Your task to perform on an android device: toggle translation in the chrome app Image 0: 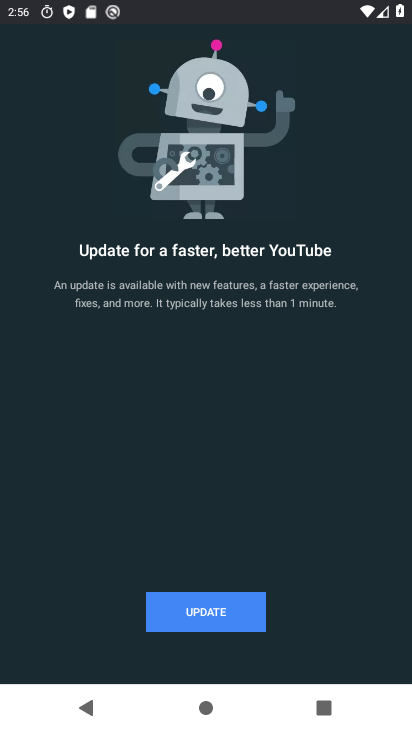
Step 0: press home button
Your task to perform on an android device: toggle translation in the chrome app Image 1: 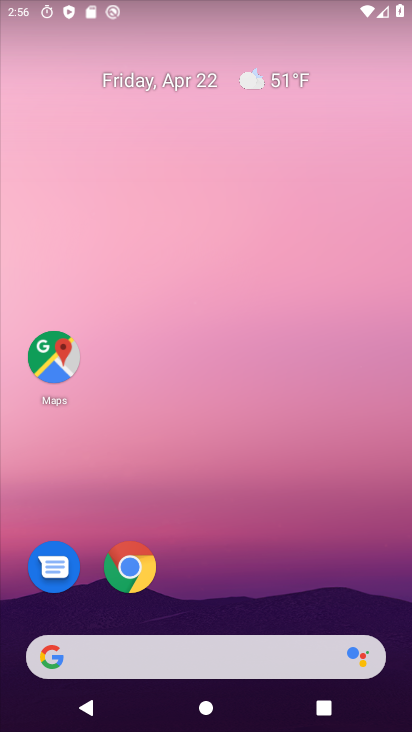
Step 1: click (116, 571)
Your task to perform on an android device: toggle translation in the chrome app Image 2: 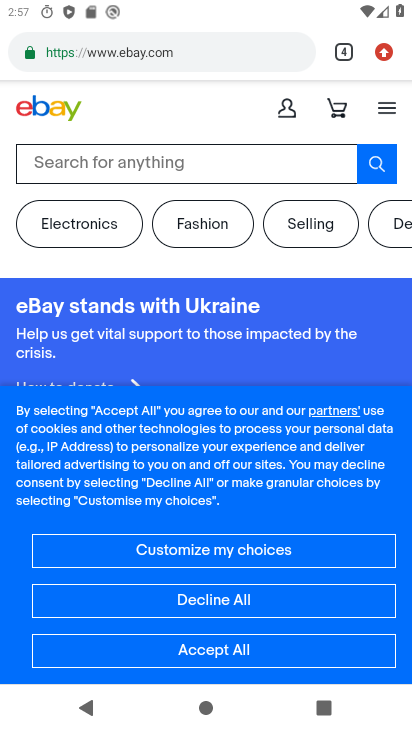
Step 2: click (383, 54)
Your task to perform on an android device: toggle translation in the chrome app Image 3: 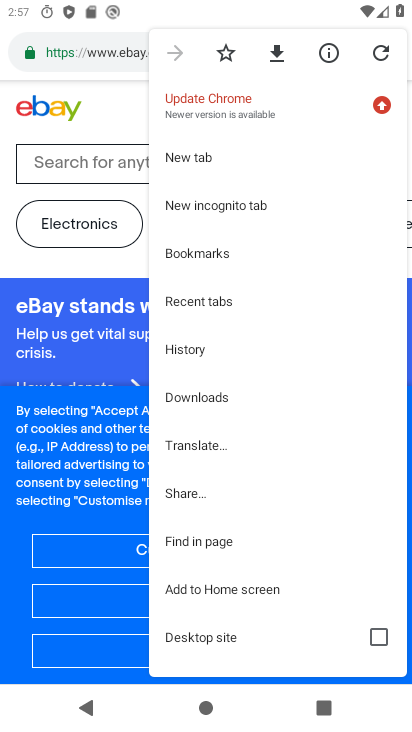
Step 3: drag from (260, 610) to (266, 254)
Your task to perform on an android device: toggle translation in the chrome app Image 4: 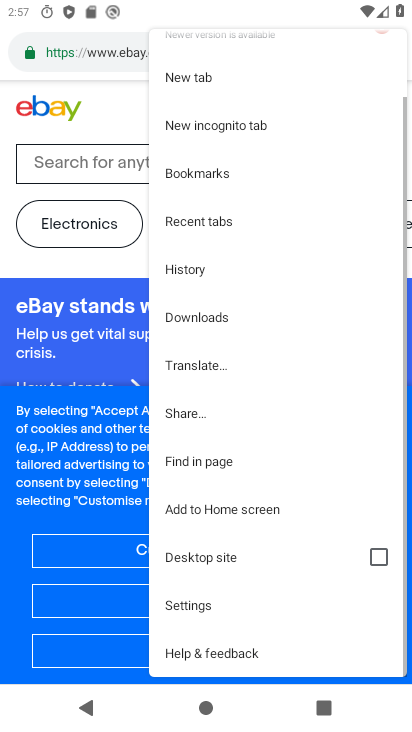
Step 4: click (233, 603)
Your task to perform on an android device: toggle translation in the chrome app Image 5: 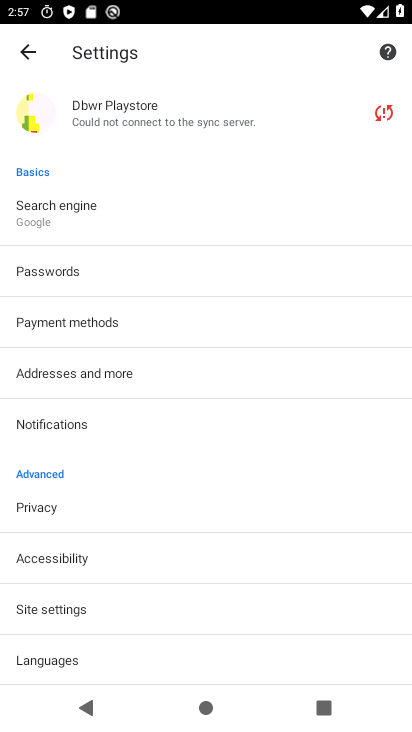
Step 5: click (139, 656)
Your task to perform on an android device: toggle translation in the chrome app Image 6: 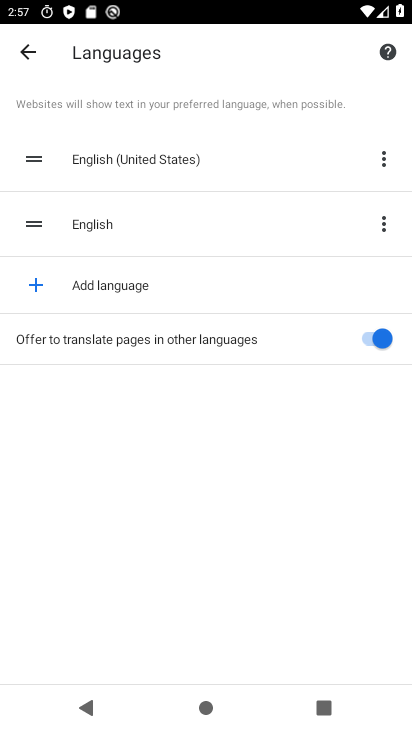
Step 6: click (377, 341)
Your task to perform on an android device: toggle translation in the chrome app Image 7: 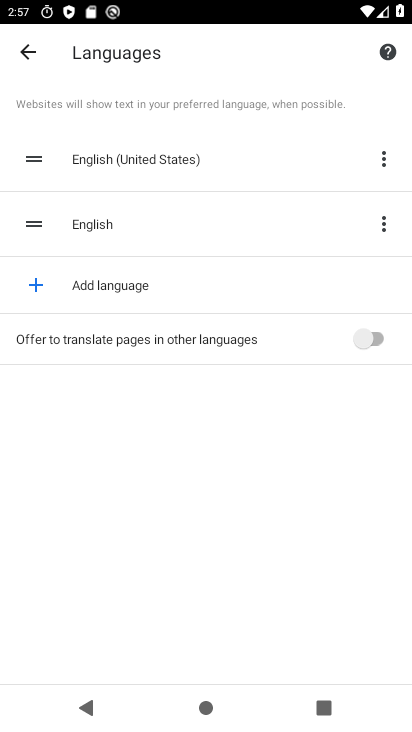
Step 7: task complete